Your task to perform on an android device: Open Google Chrome and click the shortcut for Amazon.com Image 0: 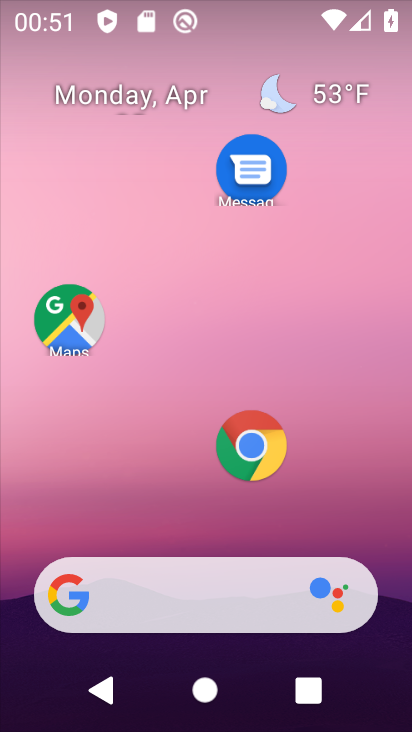
Step 0: click (246, 456)
Your task to perform on an android device: Open Google Chrome and click the shortcut for Amazon.com Image 1: 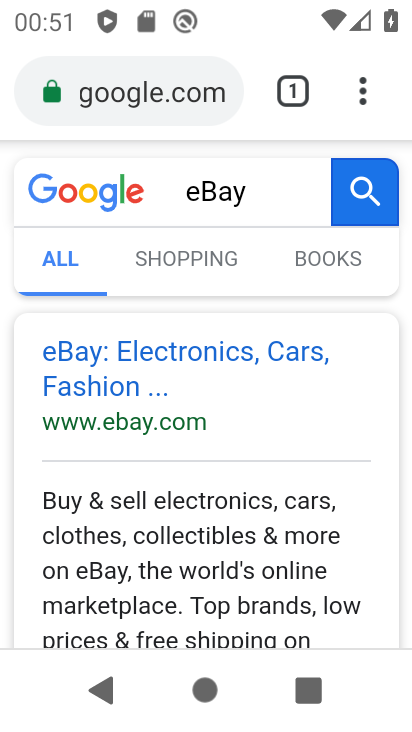
Step 1: click (362, 100)
Your task to perform on an android device: Open Google Chrome and click the shortcut for Amazon.com Image 2: 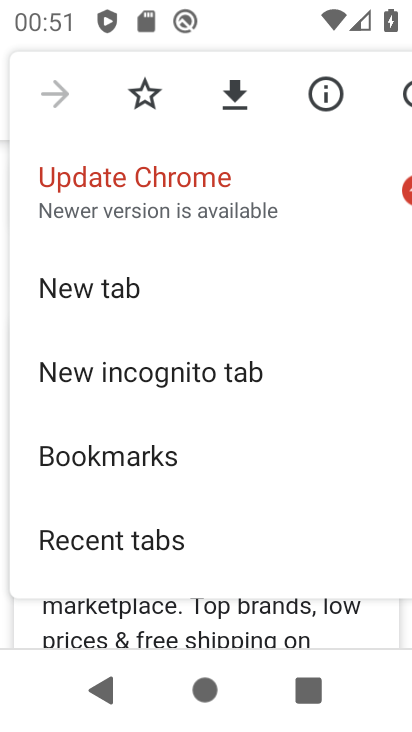
Step 2: click (118, 288)
Your task to perform on an android device: Open Google Chrome and click the shortcut for Amazon.com Image 3: 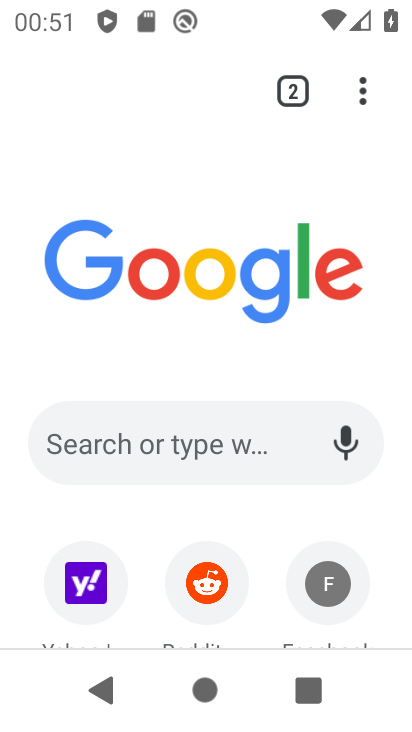
Step 3: drag from (254, 519) to (296, 92)
Your task to perform on an android device: Open Google Chrome and click the shortcut for Amazon.com Image 4: 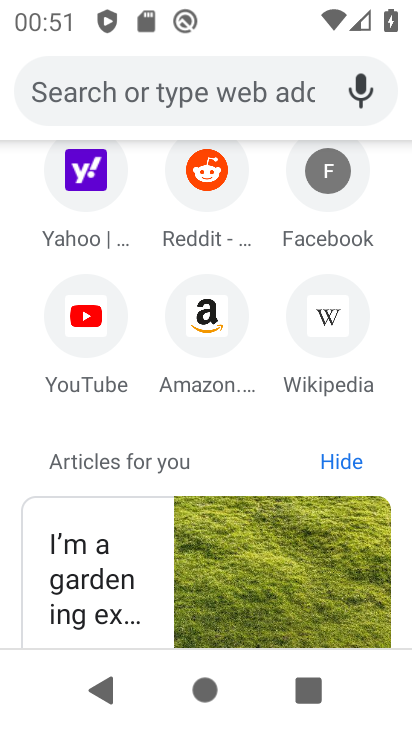
Step 4: click (204, 330)
Your task to perform on an android device: Open Google Chrome and click the shortcut for Amazon.com Image 5: 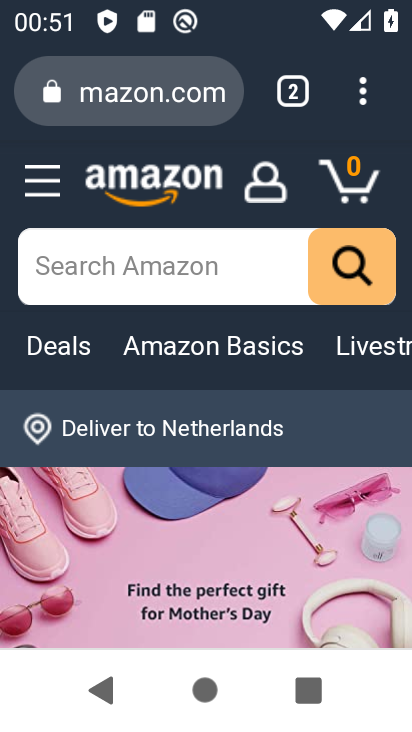
Step 5: task complete